Your task to perform on an android device: Go to display settings Image 0: 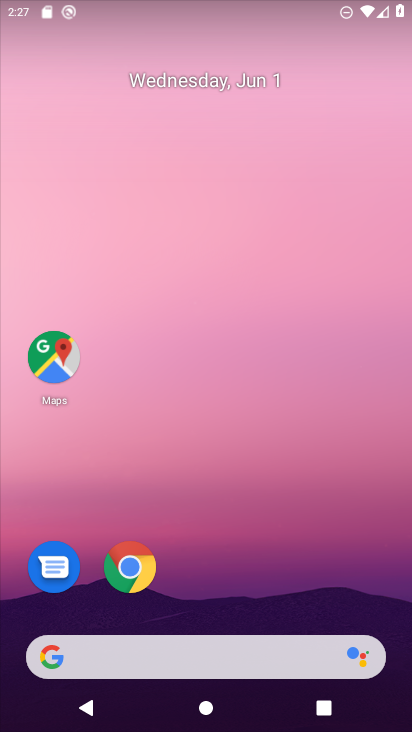
Step 0: drag from (237, 588) to (308, 179)
Your task to perform on an android device: Go to display settings Image 1: 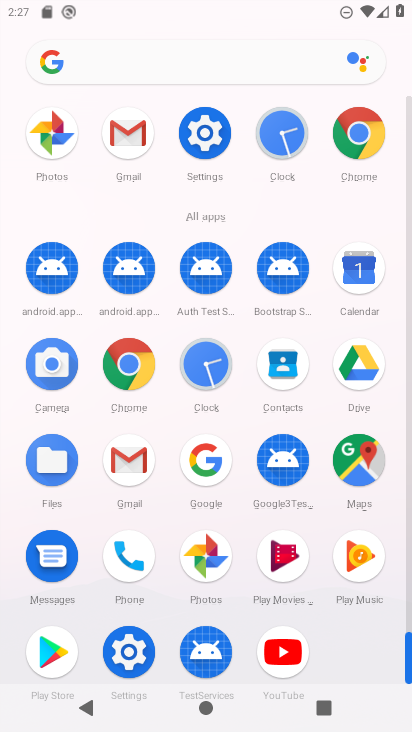
Step 1: click (132, 657)
Your task to perform on an android device: Go to display settings Image 2: 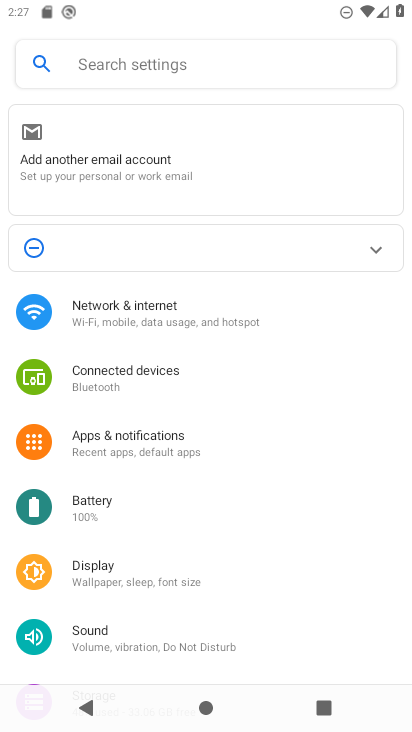
Step 2: click (123, 569)
Your task to perform on an android device: Go to display settings Image 3: 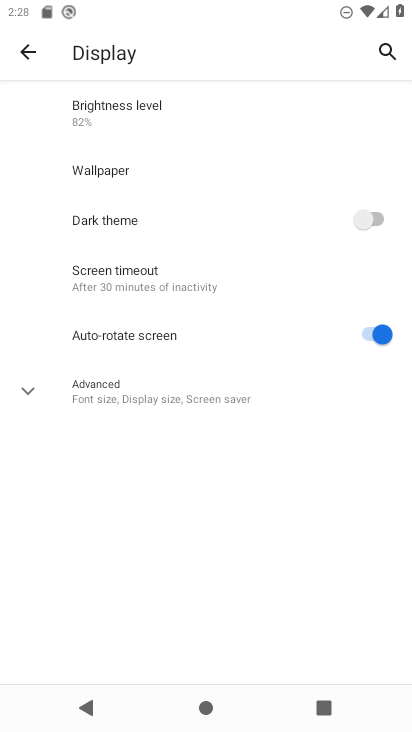
Step 3: task complete